Your task to perform on an android device: Open sound settings Image 0: 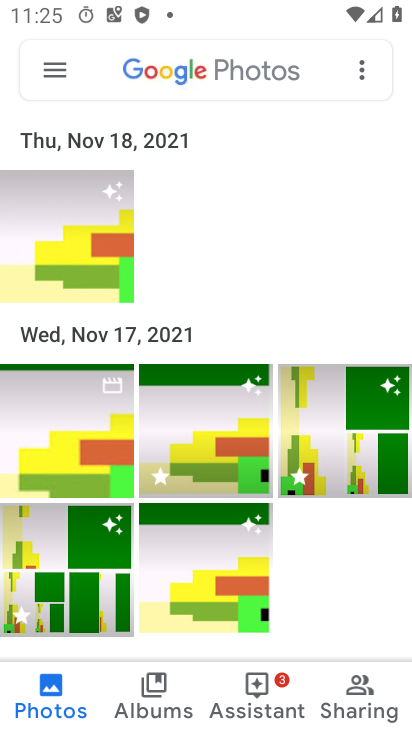
Step 0: press home button
Your task to perform on an android device: Open sound settings Image 1: 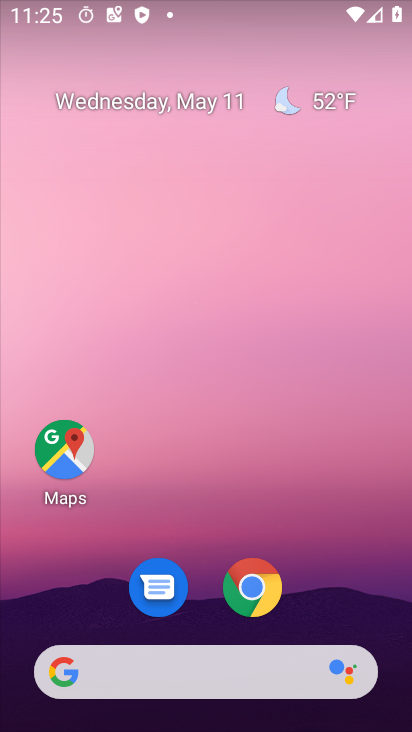
Step 1: drag from (160, 692) to (342, 192)
Your task to perform on an android device: Open sound settings Image 2: 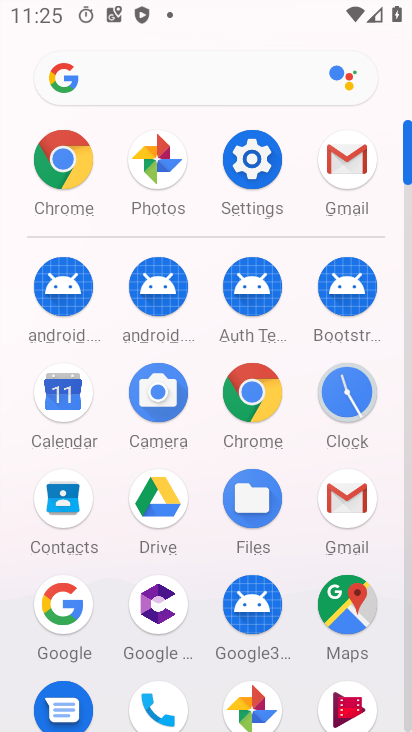
Step 2: click (271, 145)
Your task to perform on an android device: Open sound settings Image 3: 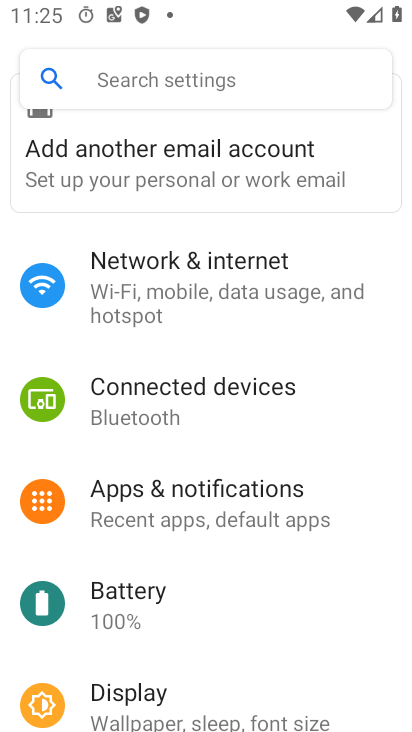
Step 3: click (170, 88)
Your task to perform on an android device: Open sound settings Image 4: 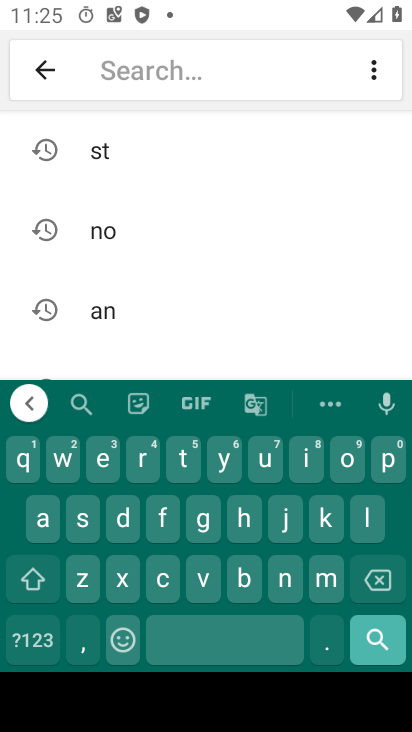
Step 4: click (80, 531)
Your task to perform on an android device: Open sound settings Image 5: 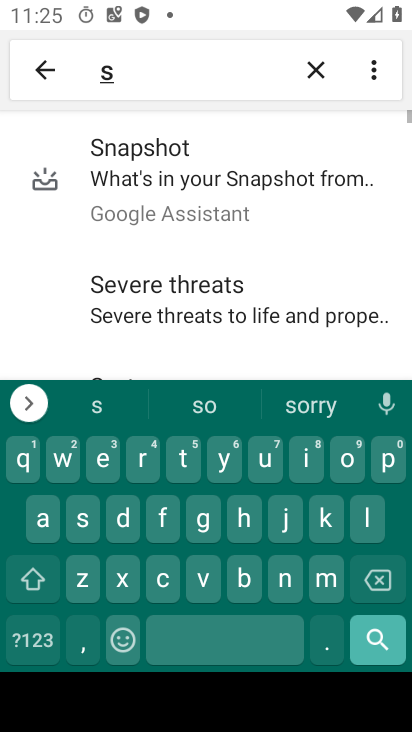
Step 5: click (349, 466)
Your task to perform on an android device: Open sound settings Image 6: 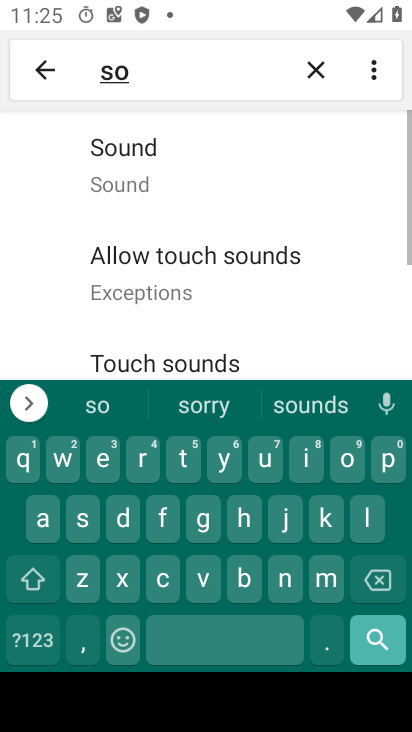
Step 6: click (172, 166)
Your task to perform on an android device: Open sound settings Image 7: 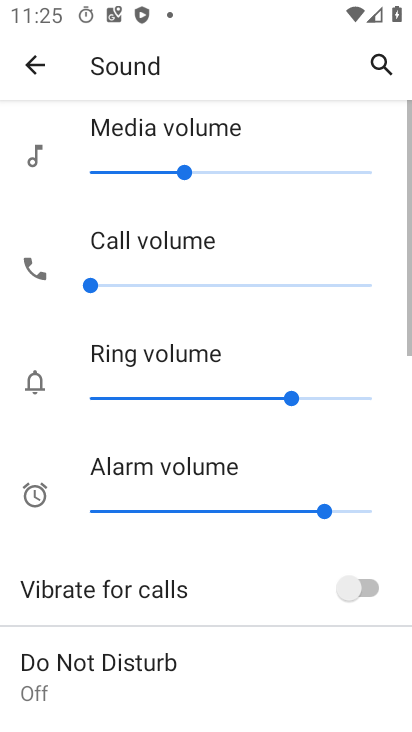
Step 7: task complete